Your task to perform on an android device: install app "McDonald's" Image 0: 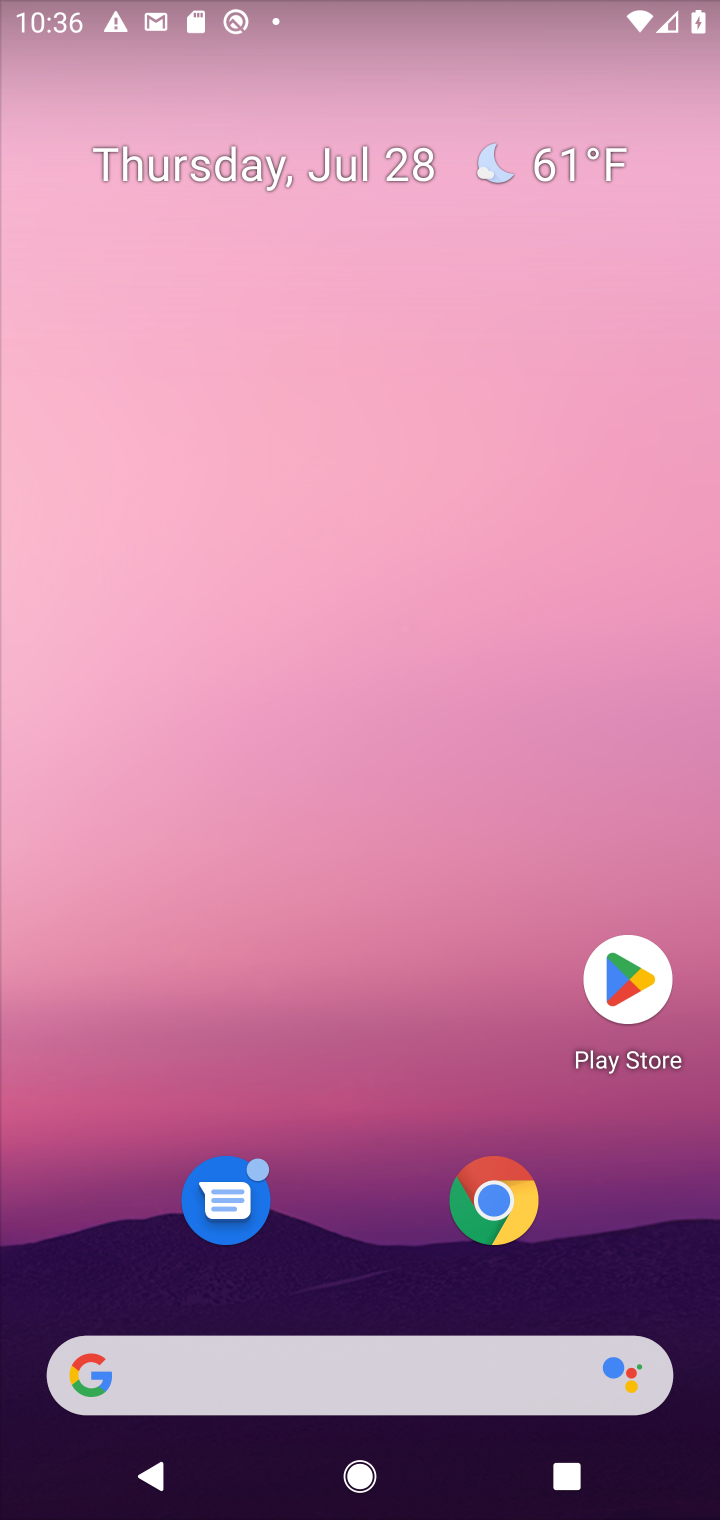
Step 0: press home button
Your task to perform on an android device: install app "McDonald's" Image 1: 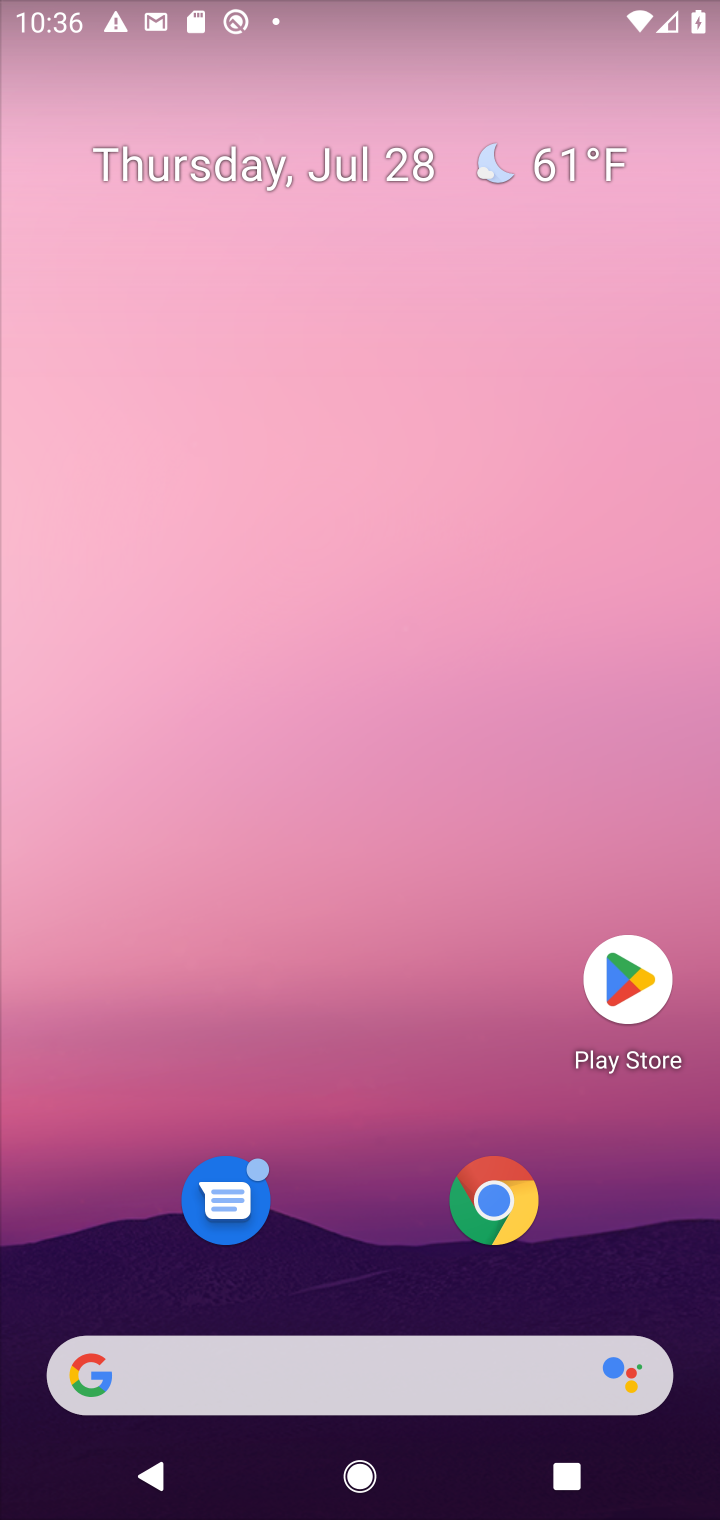
Step 1: click (630, 977)
Your task to perform on an android device: install app "McDonald's" Image 2: 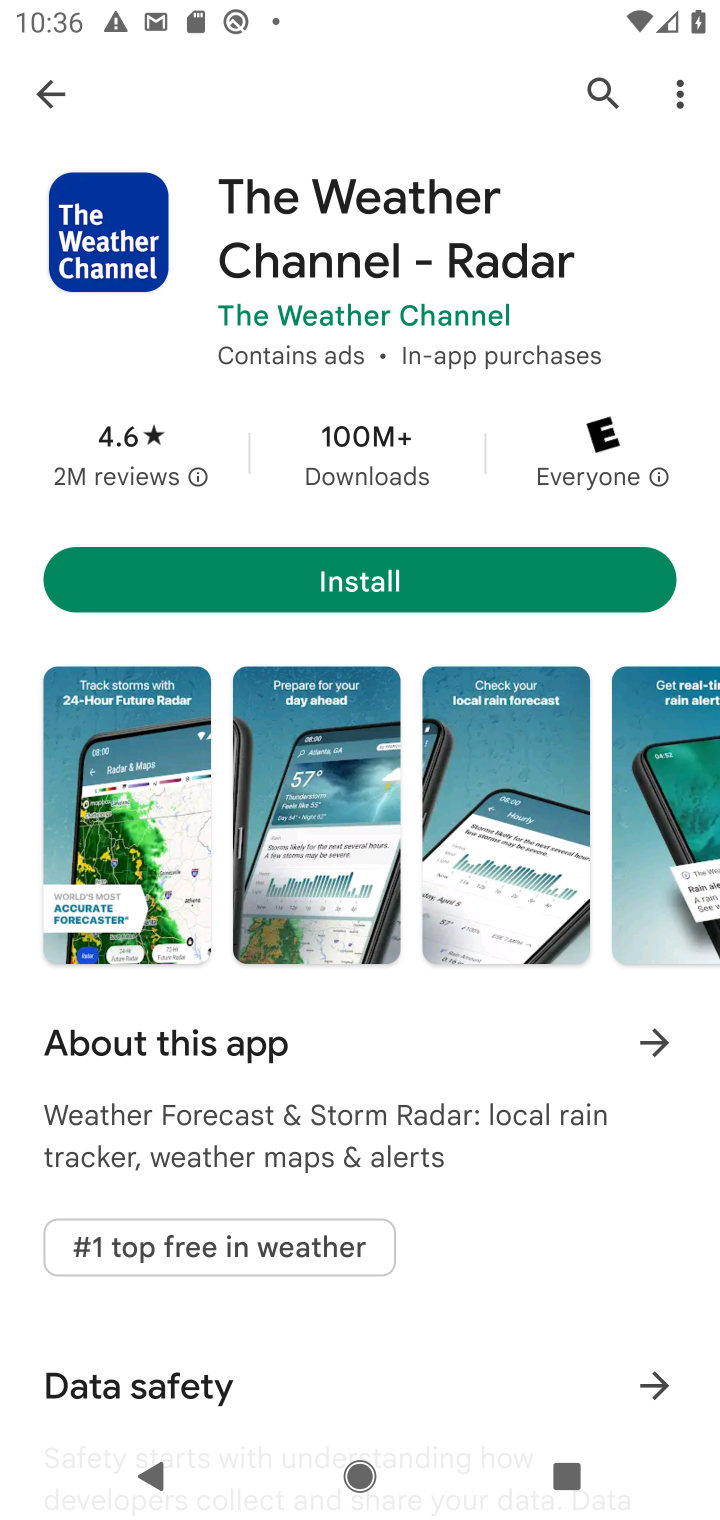
Step 2: click (592, 83)
Your task to perform on an android device: install app "McDonald's" Image 3: 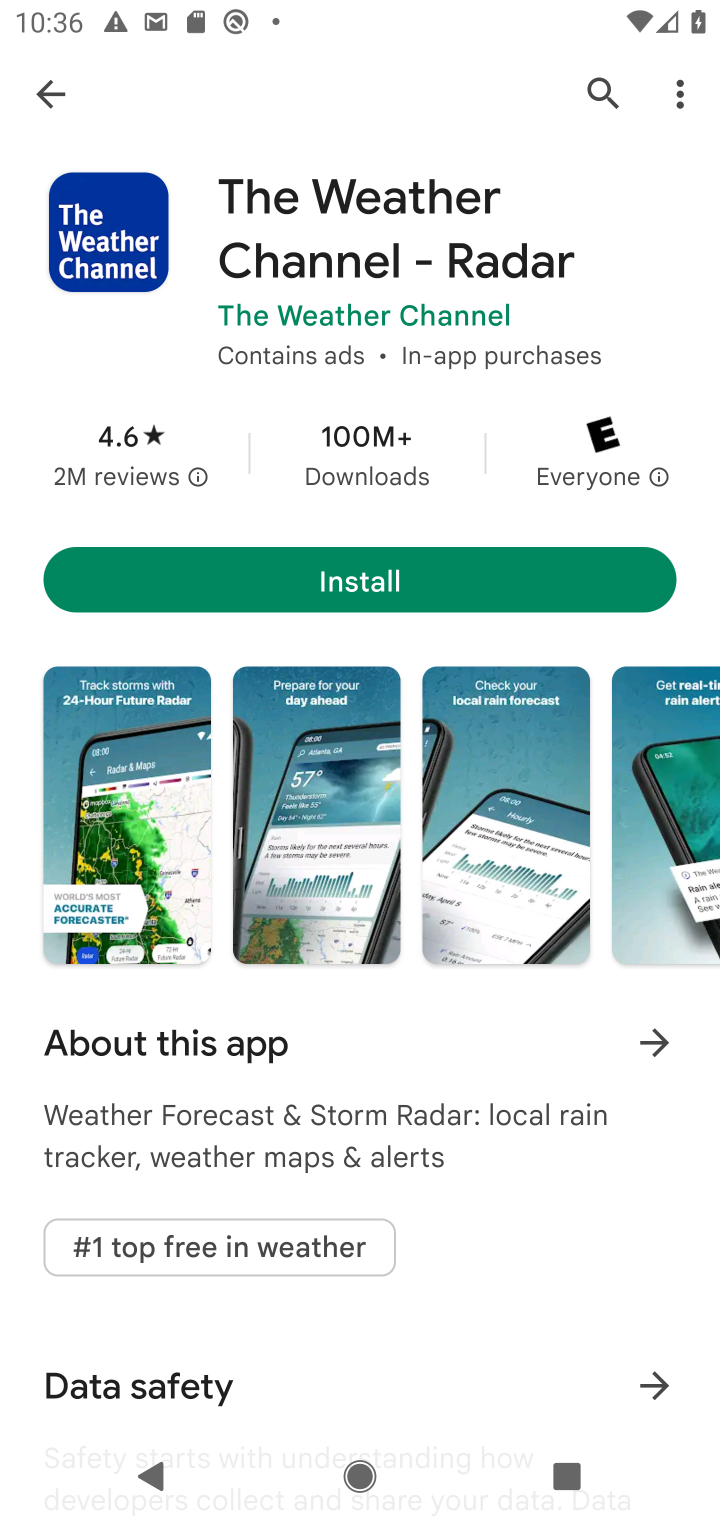
Step 3: click (604, 83)
Your task to perform on an android device: install app "McDonald's" Image 4: 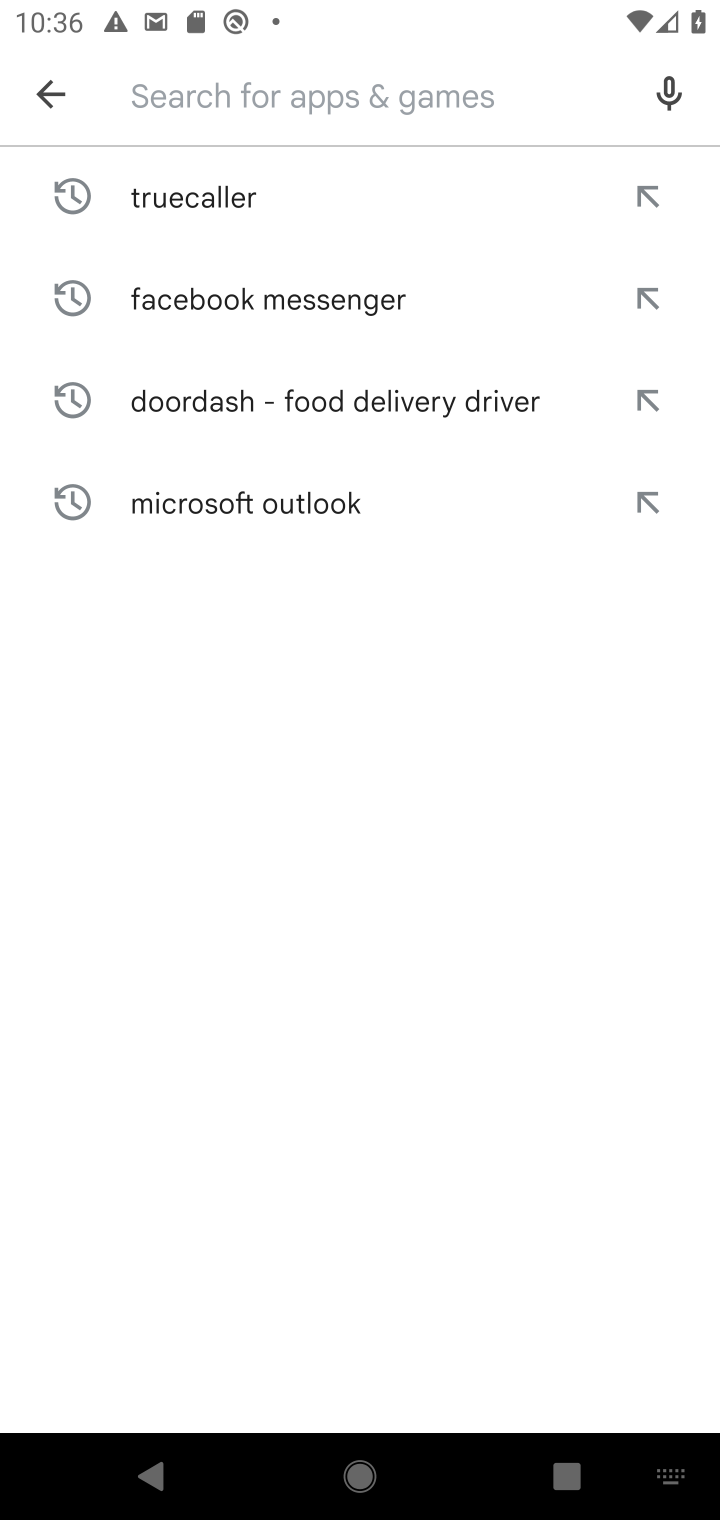
Step 4: type "McDonald's"
Your task to perform on an android device: install app "McDonald's" Image 5: 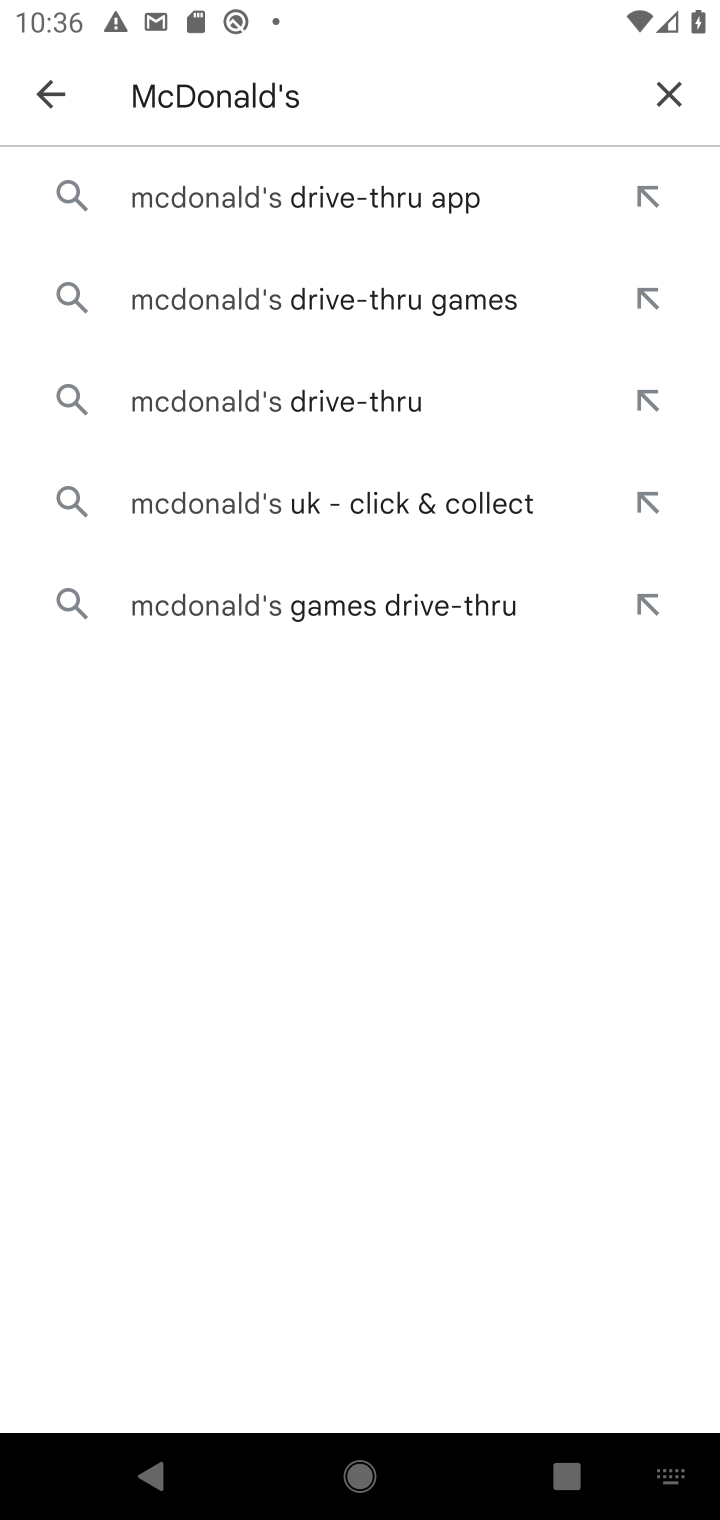
Step 5: click (283, 203)
Your task to perform on an android device: install app "McDonald's" Image 6: 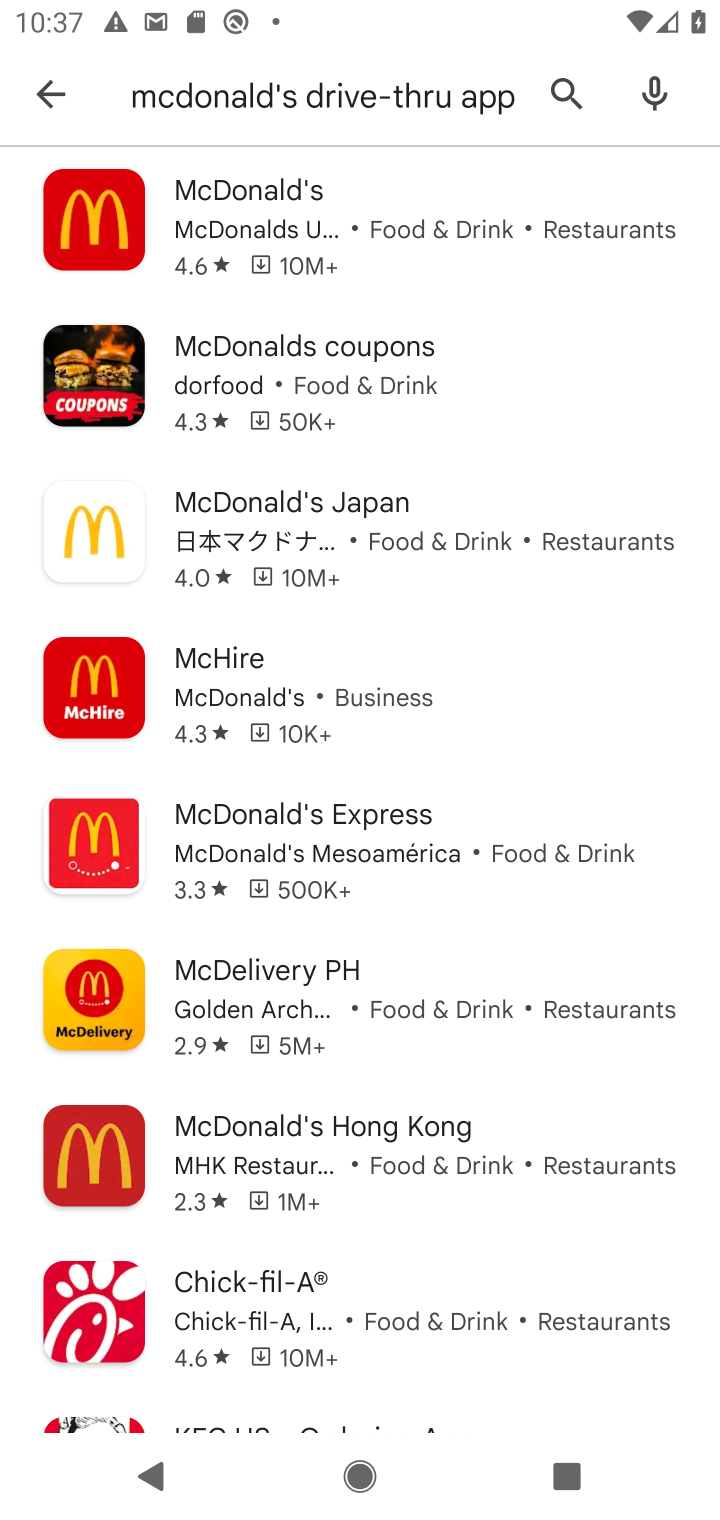
Step 6: click (233, 211)
Your task to perform on an android device: install app "McDonald's" Image 7: 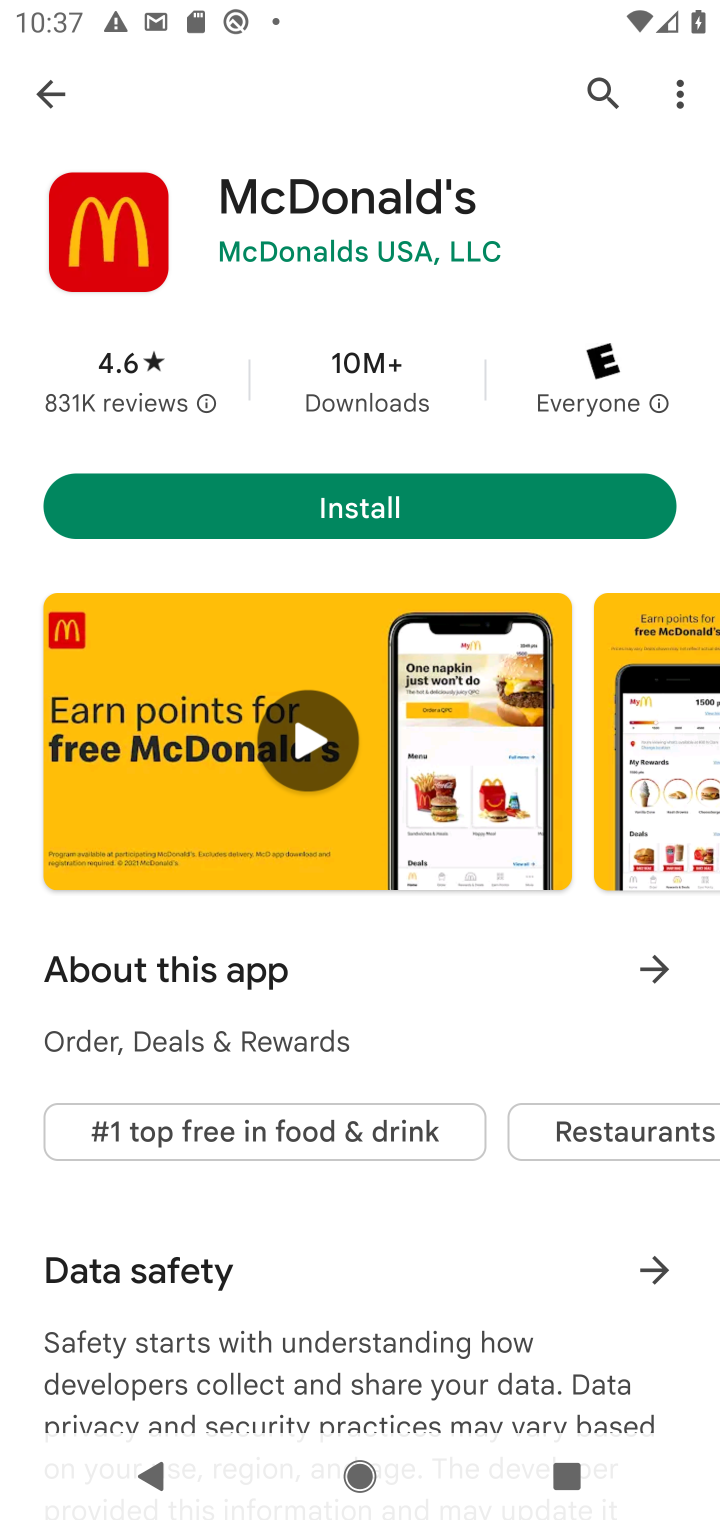
Step 7: click (377, 503)
Your task to perform on an android device: install app "McDonald's" Image 8: 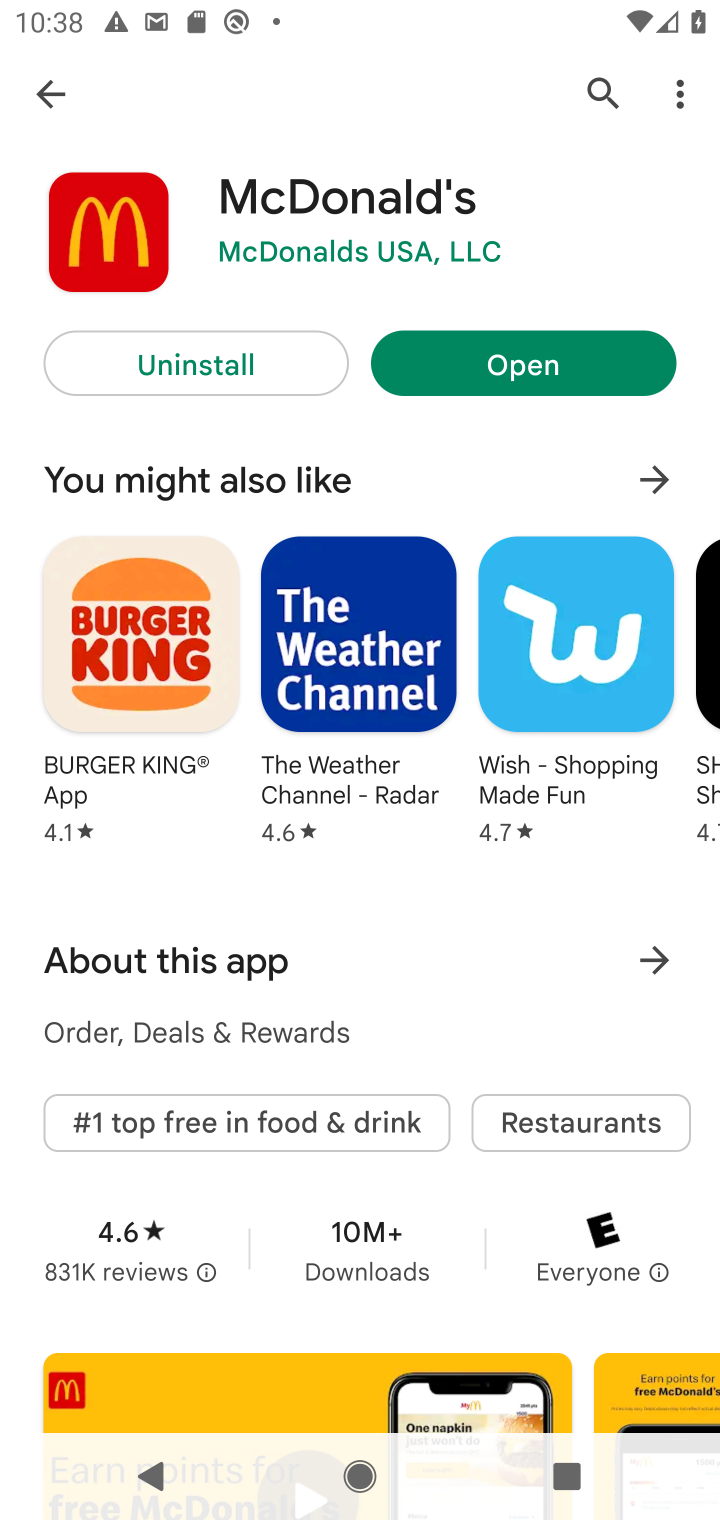
Step 8: task complete